Your task to perform on an android device: Go to internet settings Image 0: 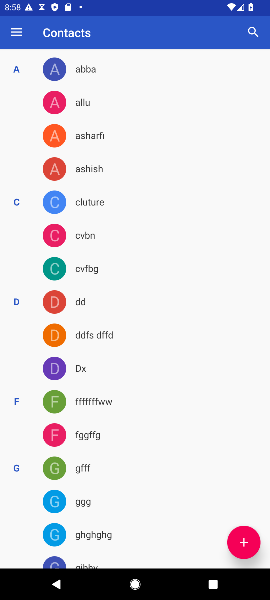
Step 0: press home button
Your task to perform on an android device: Go to internet settings Image 1: 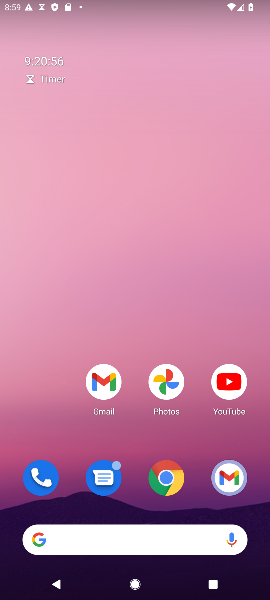
Step 1: drag from (193, 351) to (126, 0)
Your task to perform on an android device: Go to internet settings Image 2: 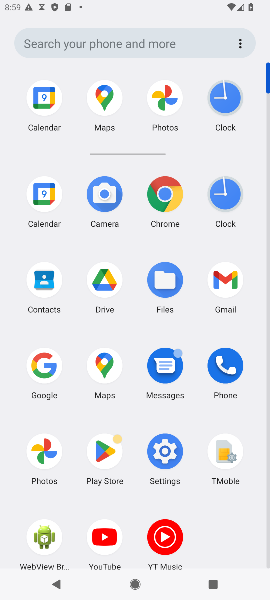
Step 2: click (165, 449)
Your task to perform on an android device: Go to internet settings Image 3: 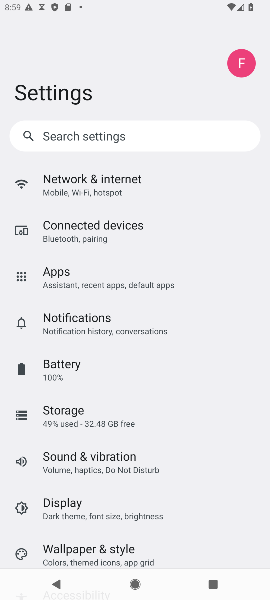
Step 3: click (110, 195)
Your task to perform on an android device: Go to internet settings Image 4: 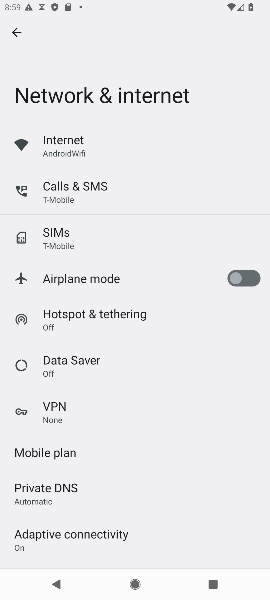
Step 4: click (211, 144)
Your task to perform on an android device: Go to internet settings Image 5: 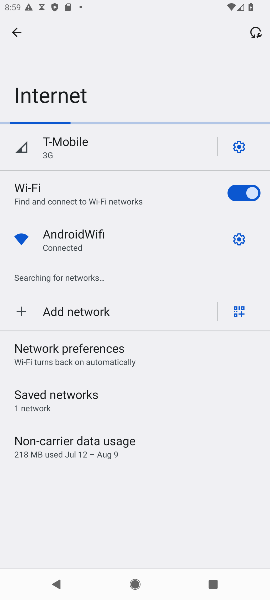
Step 5: task complete